Your task to perform on an android device: Go to Android settings Image 0: 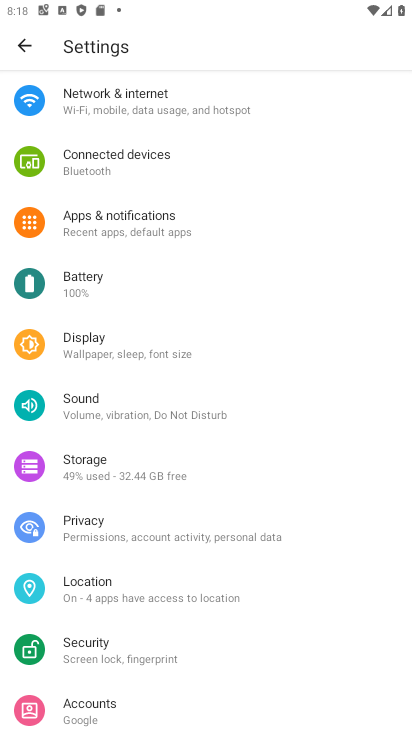
Step 0: drag from (231, 643) to (321, 177)
Your task to perform on an android device: Go to Android settings Image 1: 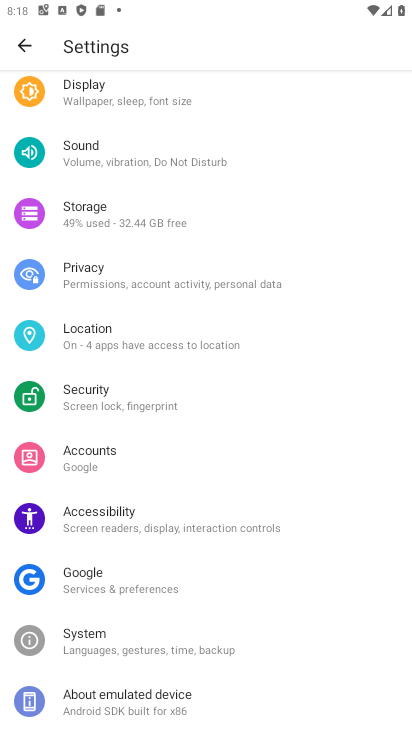
Step 1: click (95, 693)
Your task to perform on an android device: Go to Android settings Image 2: 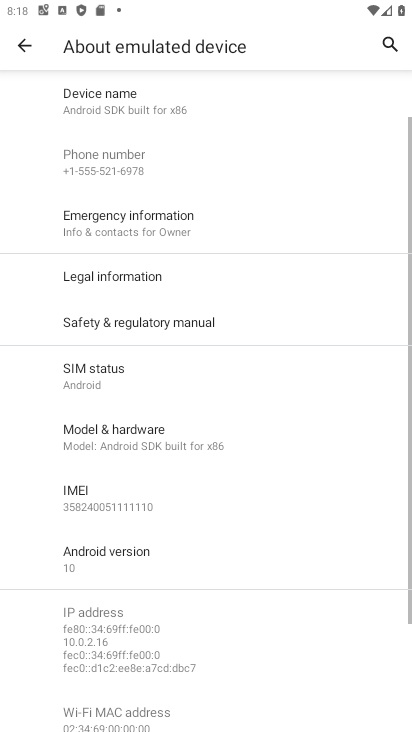
Step 2: task complete